Your task to perform on an android device: Open the map Image 0: 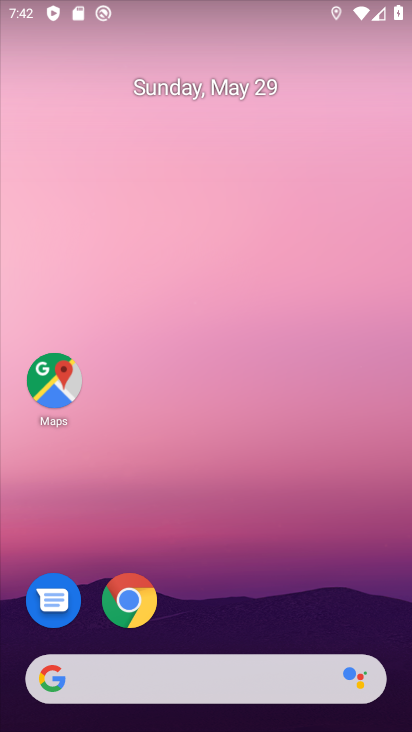
Step 0: drag from (289, 619) to (309, 0)
Your task to perform on an android device: Open the map Image 1: 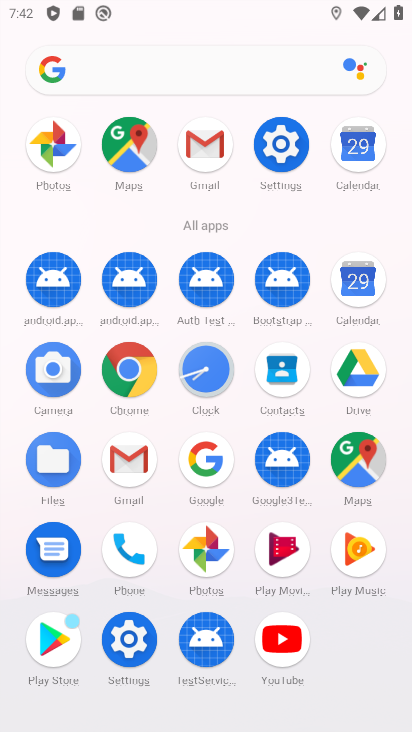
Step 1: click (126, 148)
Your task to perform on an android device: Open the map Image 2: 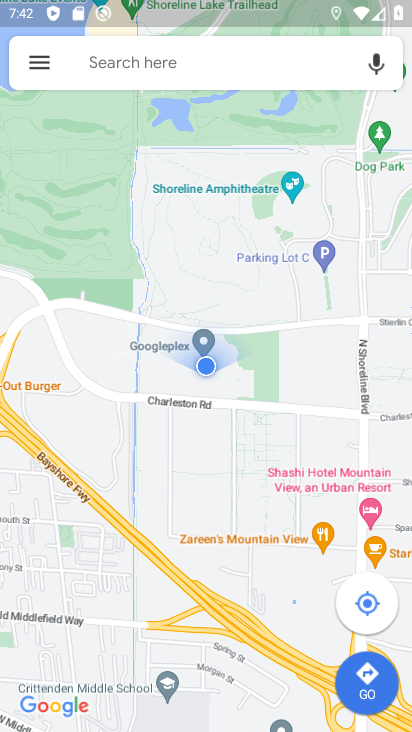
Step 2: task complete